Your task to perform on an android device: Go to Amazon Image 0: 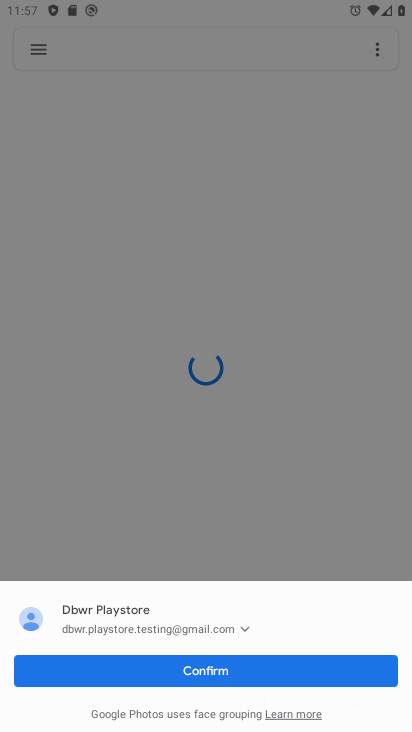
Step 0: press home button
Your task to perform on an android device: Go to Amazon Image 1: 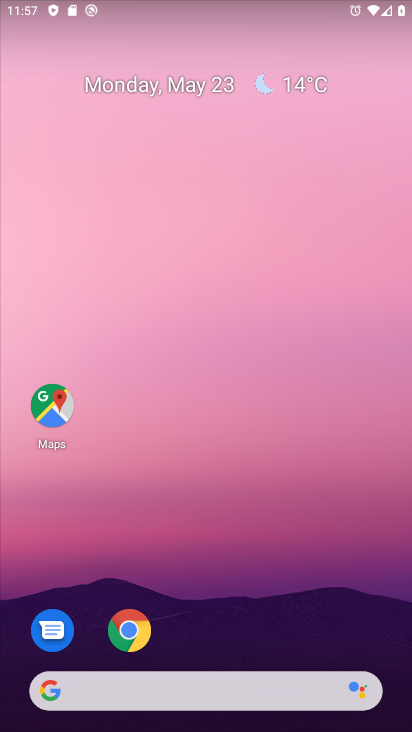
Step 1: drag from (393, 600) to (380, 219)
Your task to perform on an android device: Go to Amazon Image 2: 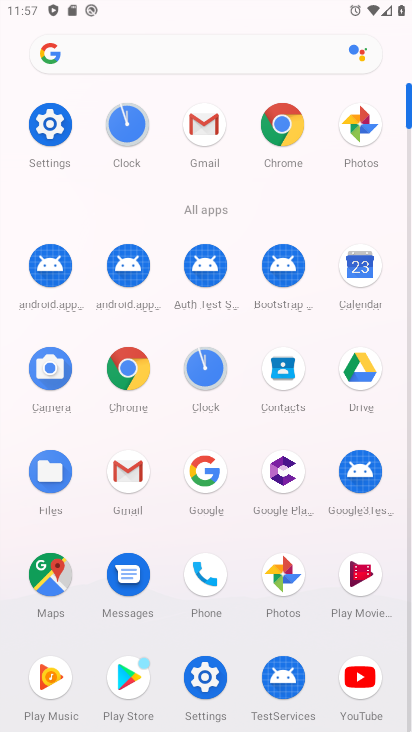
Step 2: click (106, 376)
Your task to perform on an android device: Go to Amazon Image 3: 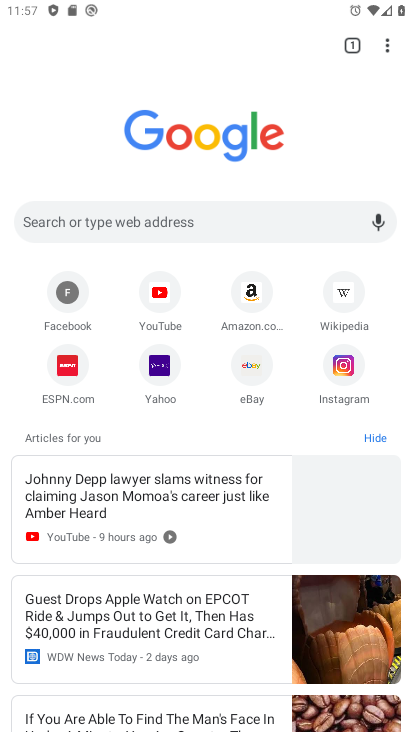
Step 3: click (263, 304)
Your task to perform on an android device: Go to Amazon Image 4: 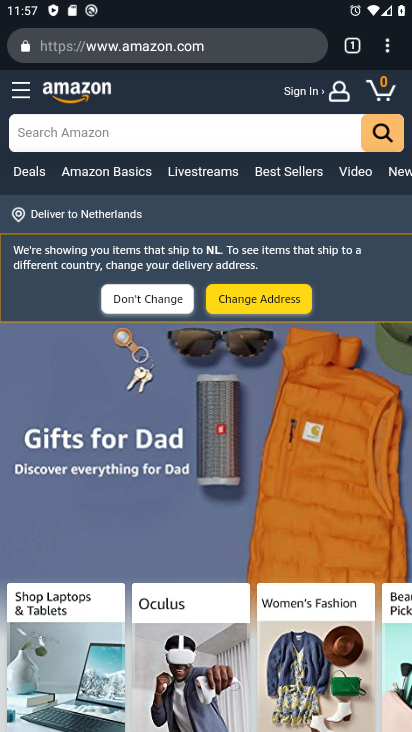
Step 4: task complete